Your task to perform on an android device: find snoozed emails in the gmail app Image 0: 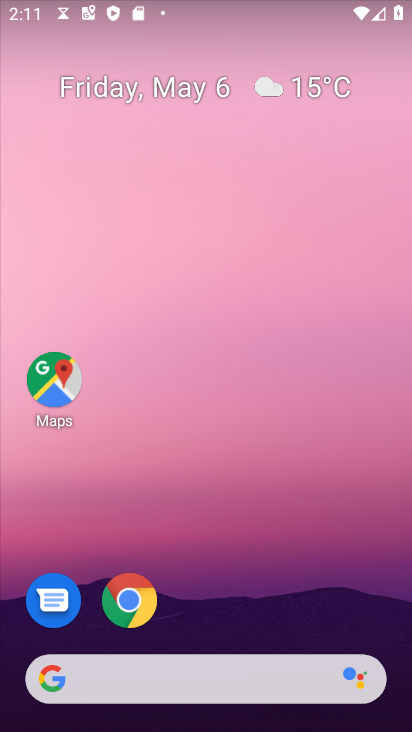
Step 0: drag from (225, 545) to (186, 6)
Your task to perform on an android device: find snoozed emails in the gmail app Image 1: 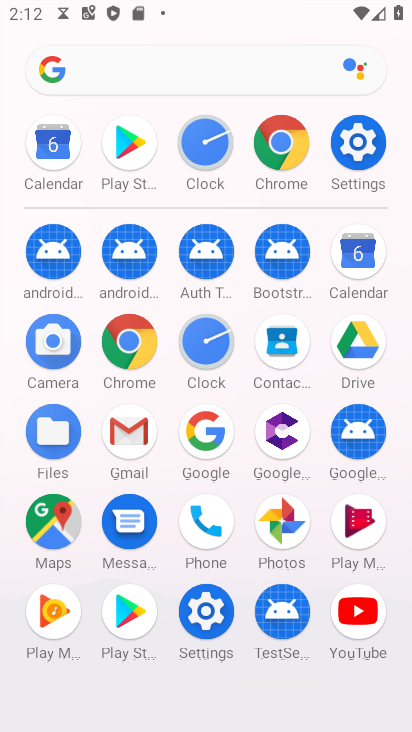
Step 1: drag from (16, 511) to (3, 140)
Your task to perform on an android device: find snoozed emails in the gmail app Image 2: 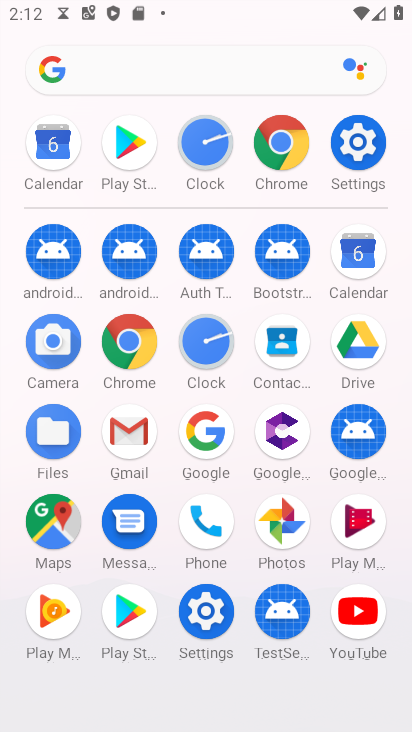
Step 2: drag from (0, 360) to (2, 89)
Your task to perform on an android device: find snoozed emails in the gmail app Image 3: 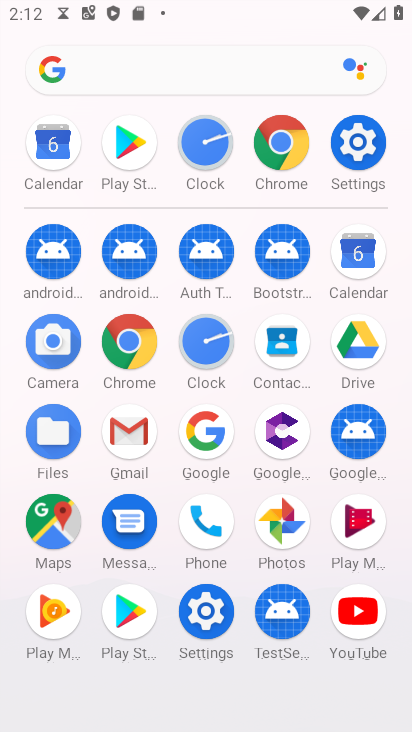
Step 3: click (127, 427)
Your task to perform on an android device: find snoozed emails in the gmail app Image 4: 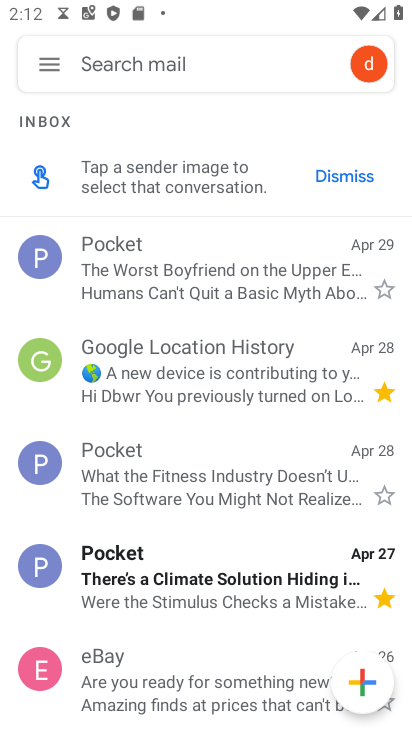
Step 4: click (44, 63)
Your task to perform on an android device: find snoozed emails in the gmail app Image 5: 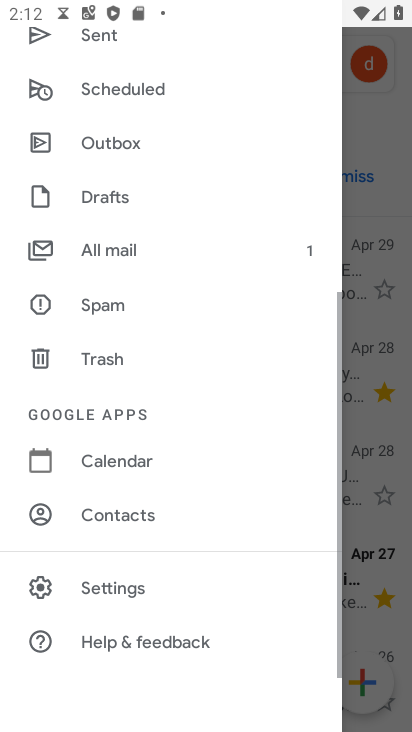
Step 5: drag from (152, 159) to (196, 630)
Your task to perform on an android device: find snoozed emails in the gmail app Image 6: 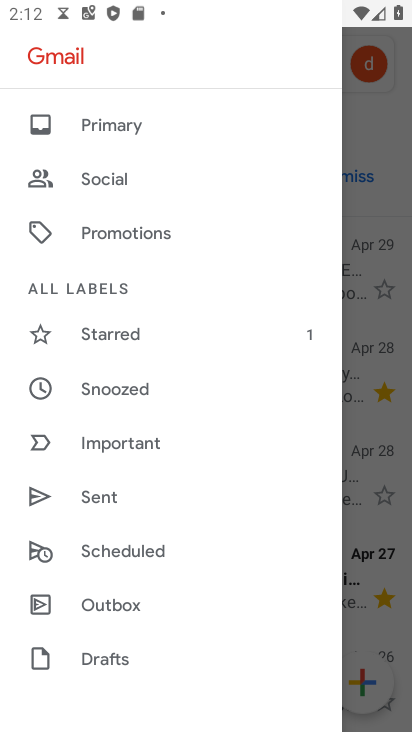
Step 6: drag from (182, 167) to (214, 445)
Your task to perform on an android device: find snoozed emails in the gmail app Image 7: 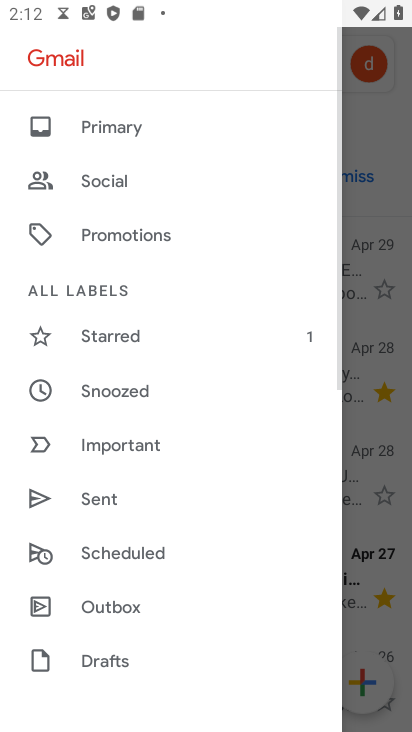
Step 7: click (142, 313)
Your task to perform on an android device: find snoozed emails in the gmail app Image 8: 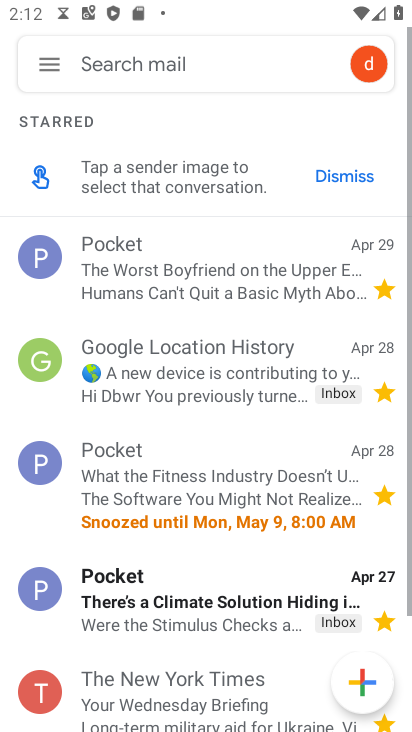
Step 8: click (41, 57)
Your task to perform on an android device: find snoozed emails in the gmail app Image 9: 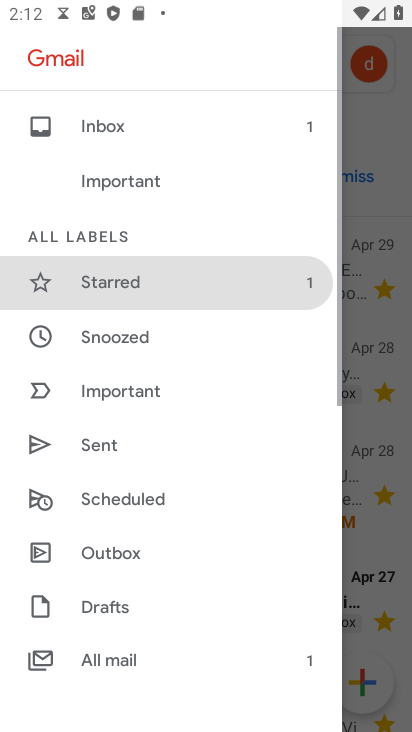
Step 9: click (86, 340)
Your task to perform on an android device: find snoozed emails in the gmail app Image 10: 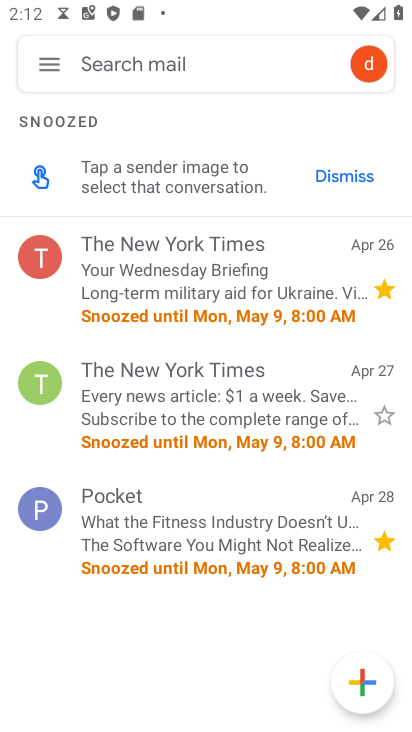
Step 10: task complete